Your task to perform on an android device: open a new tab in the chrome app Image 0: 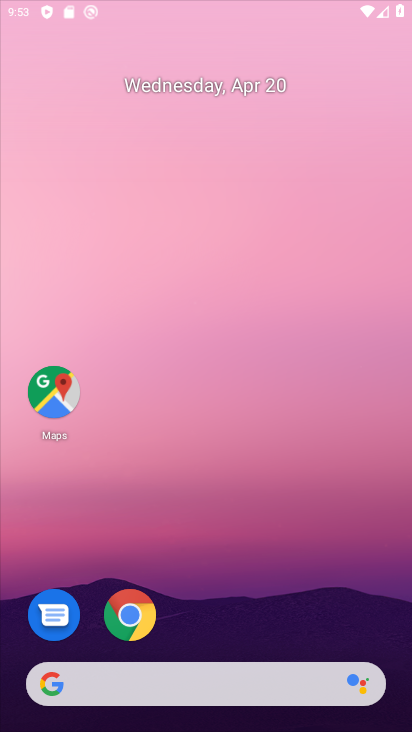
Step 0: drag from (215, 639) to (339, 53)
Your task to perform on an android device: open a new tab in the chrome app Image 1: 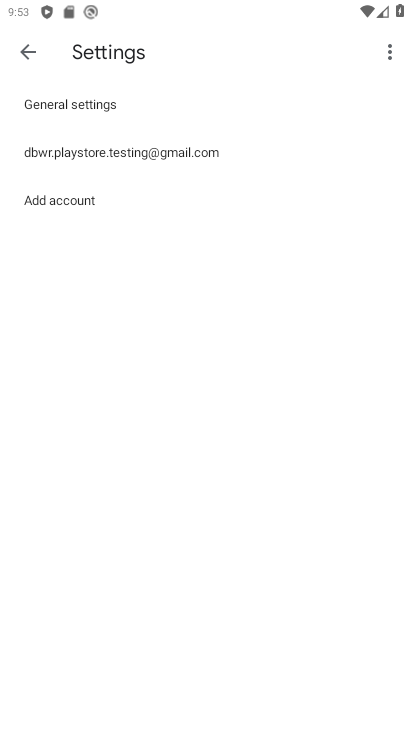
Step 1: press back button
Your task to perform on an android device: open a new tab in the chrome app Image 2: 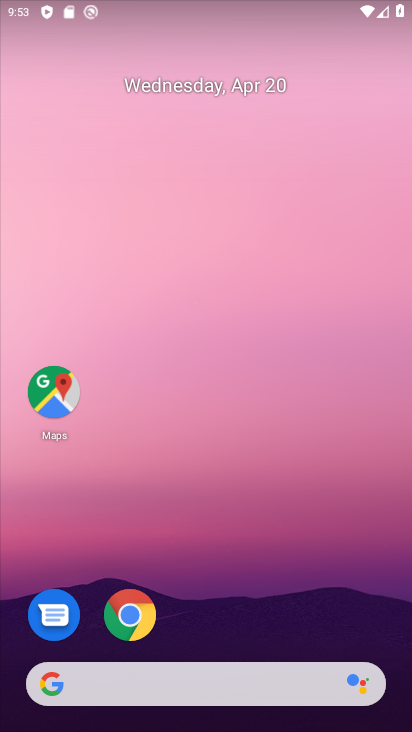
Step 2: click (131, 634)
Your task to perform on an android device: open a new tab in the chrome app Image 3: 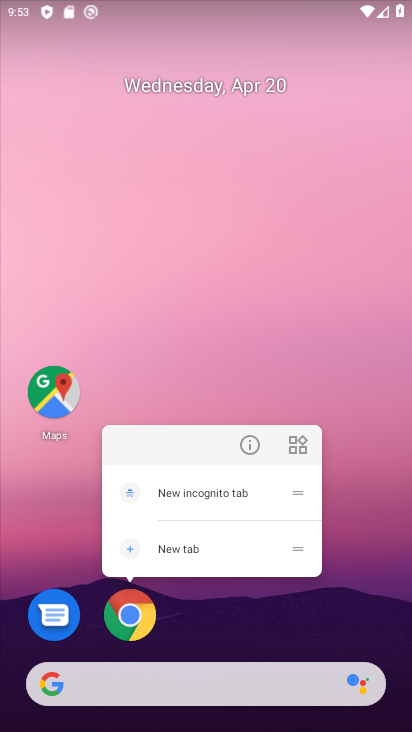
Step 3: click (131, 634)
Your task to perform on an android device: open a new tab in the chrome app Image 4: 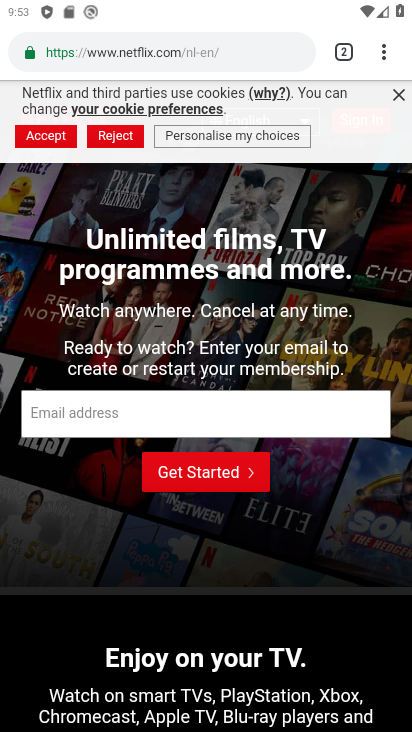
Step 4: click (335, 55)
Your task to perform on an android device: open a new tab in the chrome app Image 5: 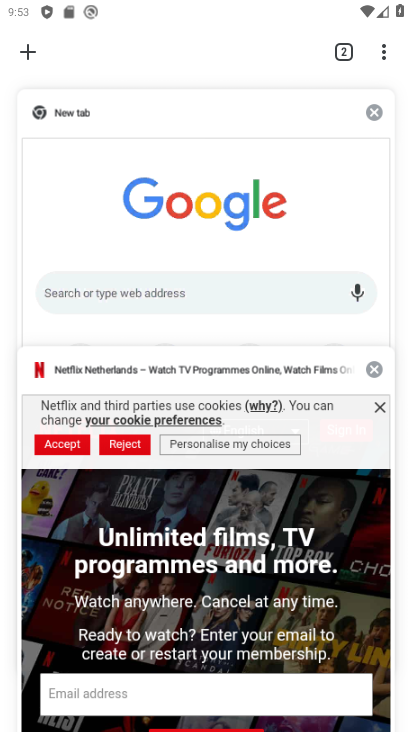
Step 5: click (18, 51)
Your task to perform on an android device: open a new tab in the chrome app Image 6: 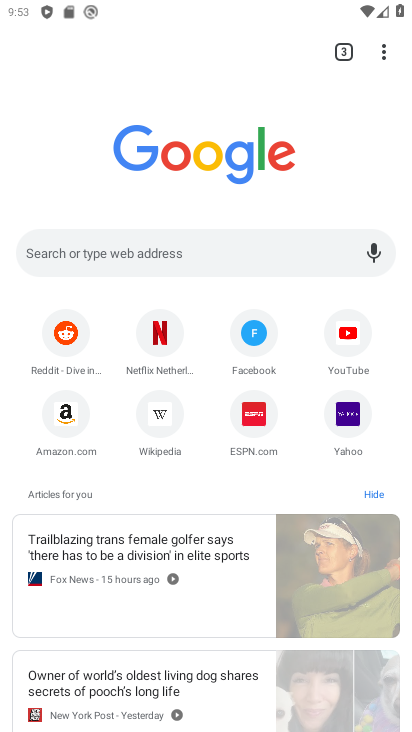
Step 6: task complete